Your task to perform on an android device: toggle priority inbox in the gmail app Image 0: 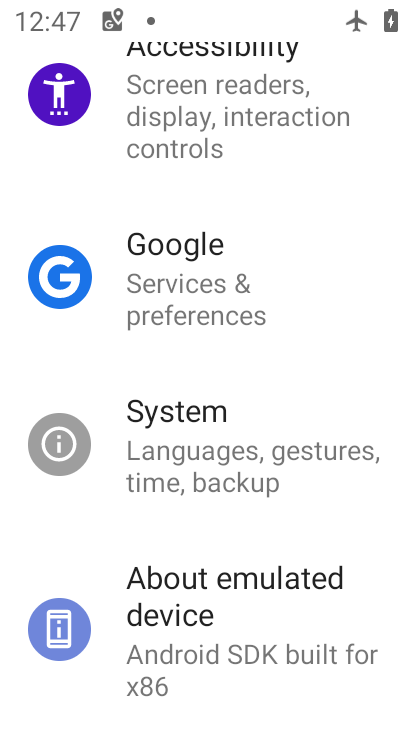
Step 0: drag from (231, 419) to (231, 522)
Your task to perform on an android device: toggle priority inbox in the gmail app Image 1: 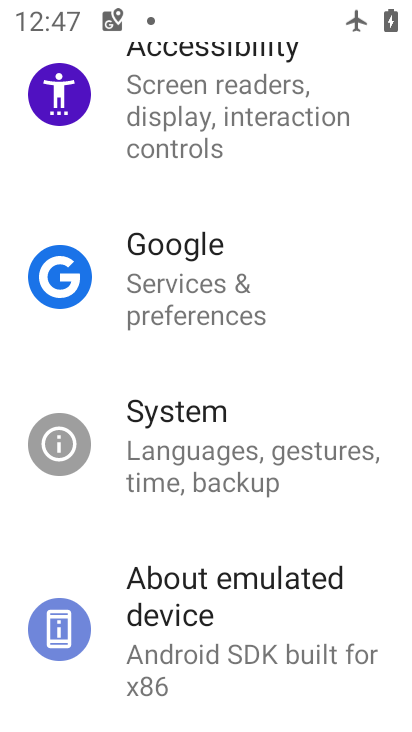
Step 1: drag from (262, 100) to (258, 484)
Your task to perform on an android device: toggle priority inbox in the gmail app Image 2: 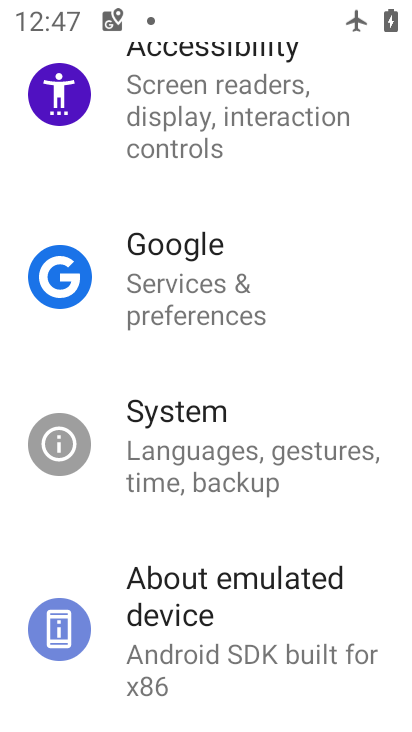
Step 2: drag from (220, 391) to (204, 589)
Your task to perform on an android device: toggle priority inbox in the gmail app Image 3: 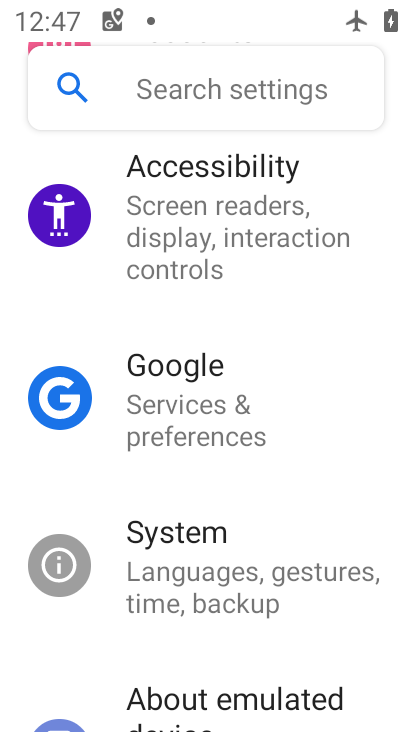
Step 3: drag from (286, 167) to (280, 420)
Your task to perform on an android device: toggle priority inbox in the gmail app Image 4: 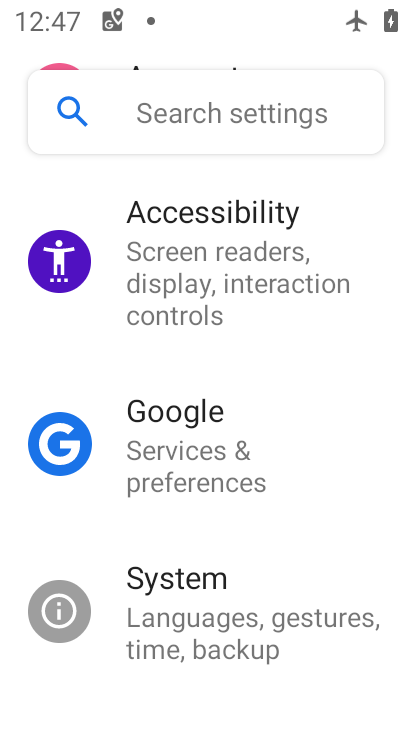
Step 4: drag from (186, 493) to (175, 584)
Your task to perform on an android device: toggle priority inbox in the gmail app Image 5: 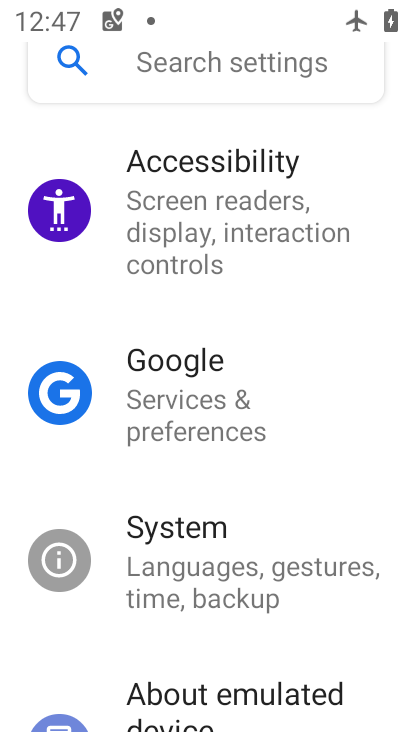
Step 5: drag from (197, 399) to (196, 711)
Your task to perform on an android device: toggle priority inbox in the gmail app Image 6: 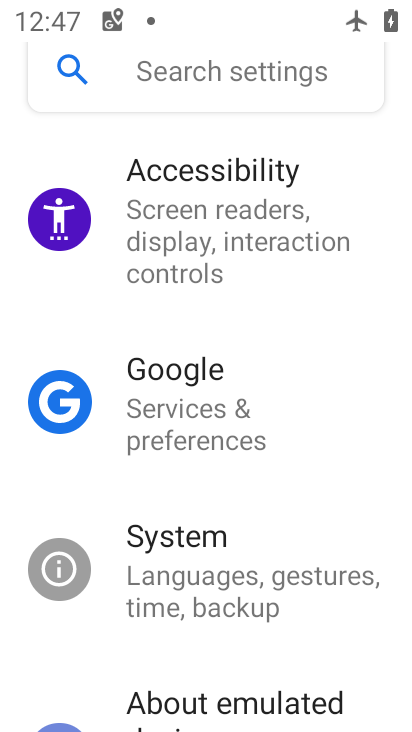
Step 6: press home button
Your task to perform on an android device: toggle priority inbox in the gmail app Image 7: 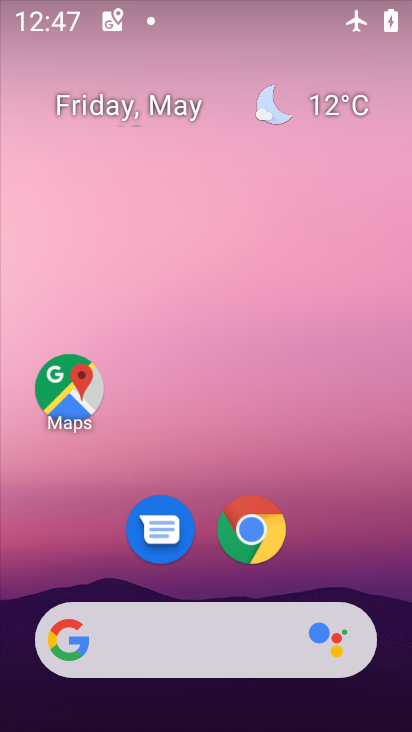
Step 7: drag from (295, 358) to (295, 249)
Your task to perform on an android device: toggle priority inbox in the gmail app Image 8: 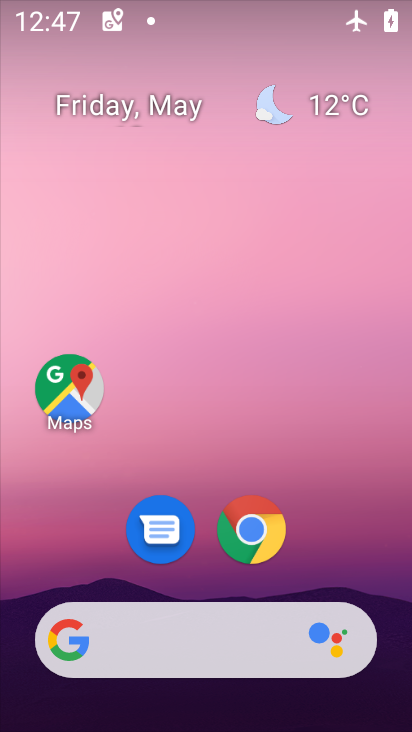
Step 8: drag from (286, 330) to (288, 260)
Your task to perform on an android device: toggle priority inbox in the gmail app Image 9: 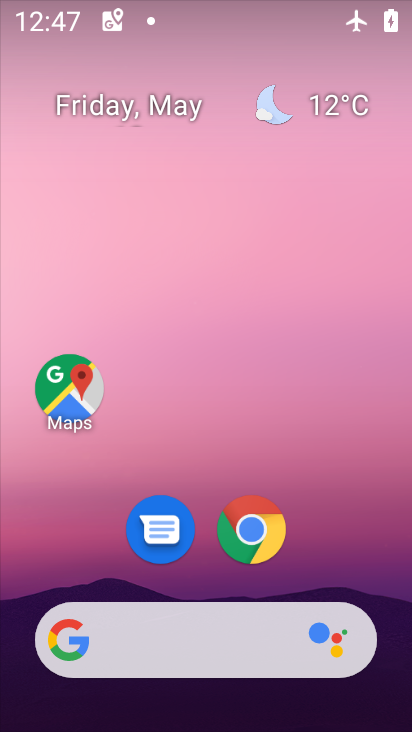
Step 9: drag from (241, 515) to (318, 132)
Your task to perform on an android device: toggle priority inbox in the gmail app Image 10: 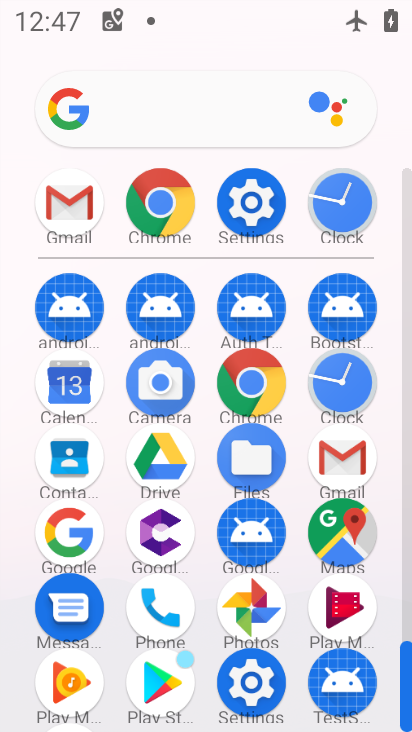
Step 10: click (357, 458)
Your task to perform on an android device: toggle priority inbox in the gmail app Image 11: 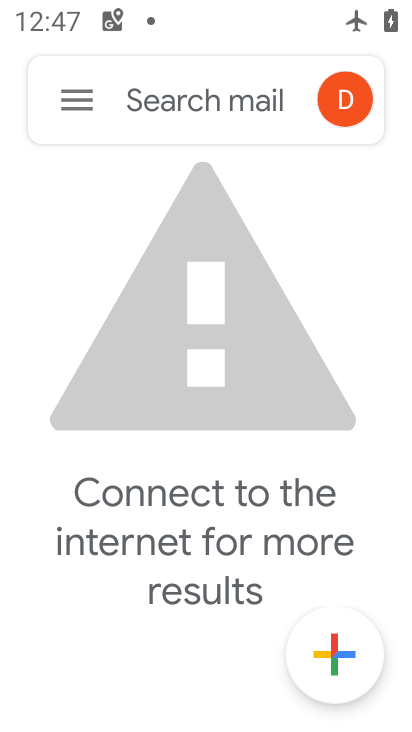
Step 11: click (76, 97)
Your task to perform on an android device: toggle priority inbox in the gmail app Image 12: 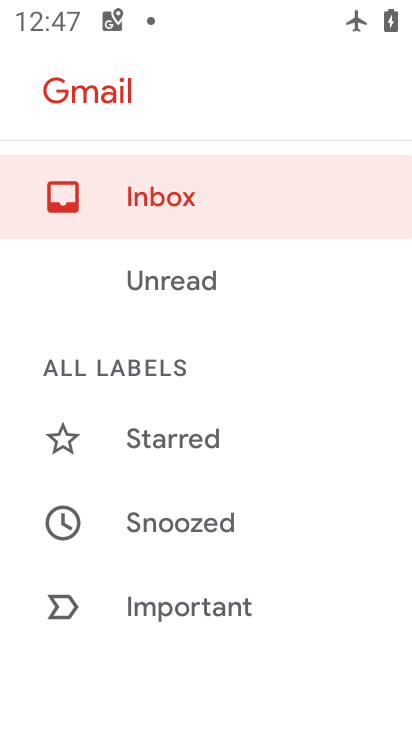
Step 12: drag from (186, 609) to (238, 218)
Your task to perform on an android device: toggle priority inbox in the gmail app Image 13: 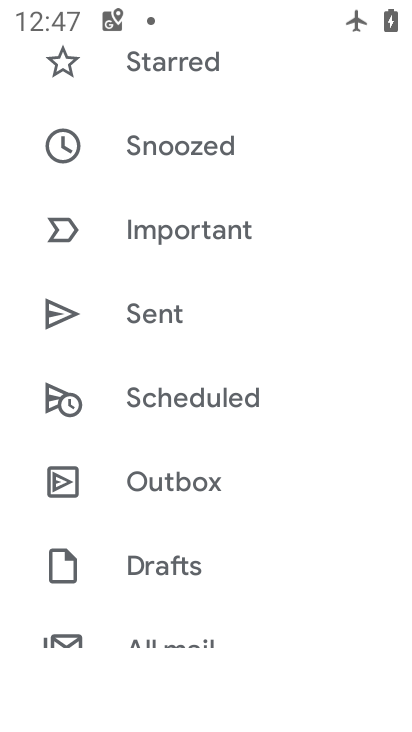
Step 13: drag from (150, 471) to (183, 259)
Your task to perform on an android device: toggle priority inbox in the gmail app Image 14: 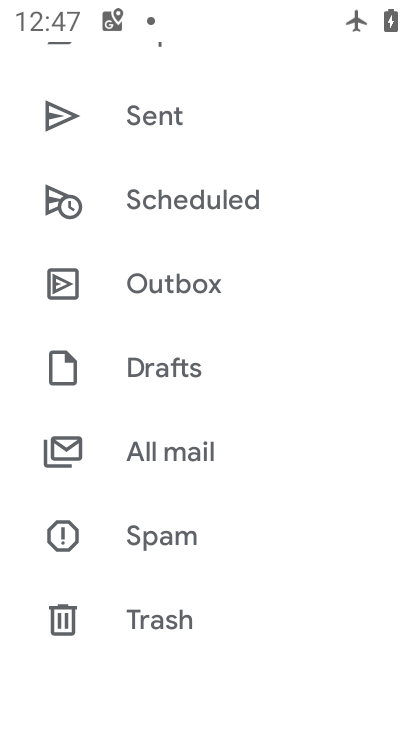
Step 14: drag from (158, 455) to (221, 222)
Your task to perform on an android device: toggle priority inbox in the gmail app Image 15: 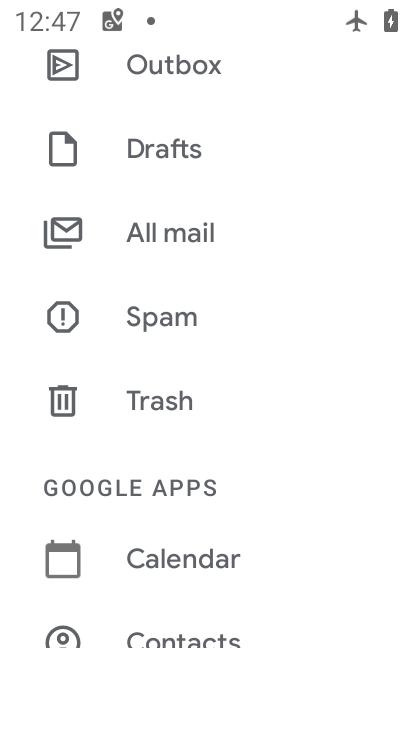
Step 15: drag from (166, 511) to (292, 186)
Your task to perform on an android device: toggle priority inbox in the gmail app Image 16: 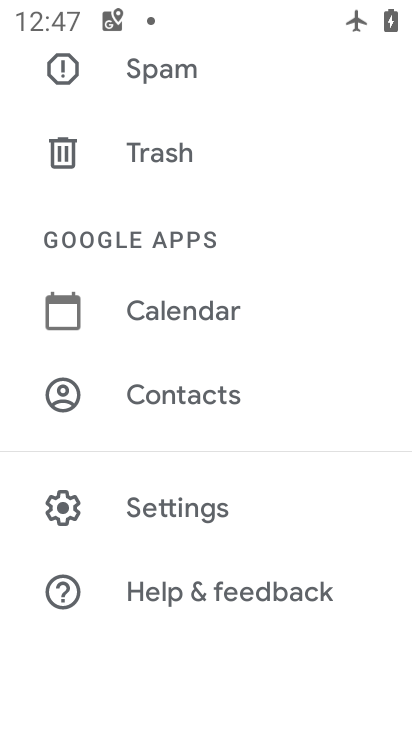
Step 16: click (152, 526)
Your task to perform on an android device: toggle priority inbox in the gmail app Image 17: 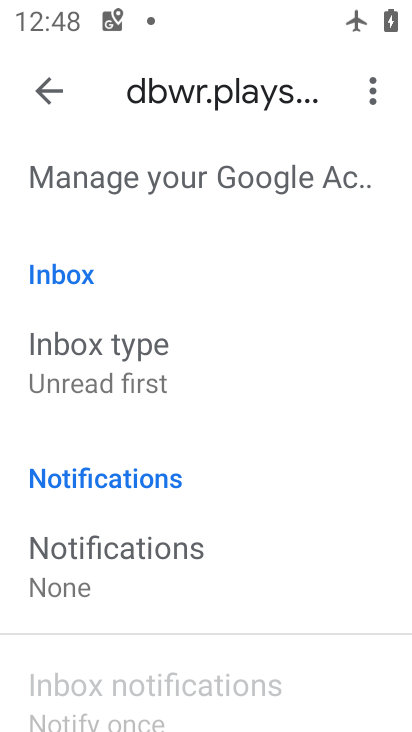
Step 17: click (125, 373)
Your task to perform on an android device: toggle priority inbox in the gmail app Image 18: 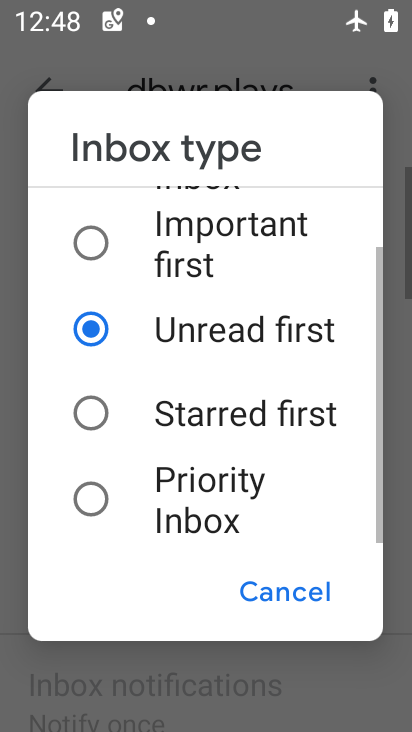
Step 18: click (173, 508)
Your task to perform on an android device: toggle priority inbox in the gmail app Image 19: 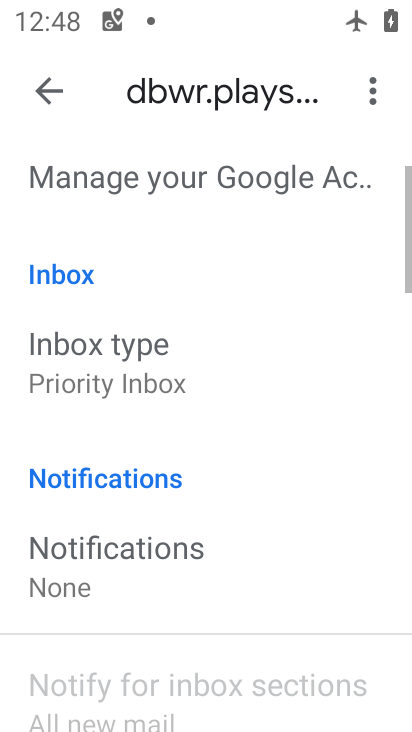
Step 19: task complete